Your task to perform on an android device: find which apps use the phone's location Image 0: 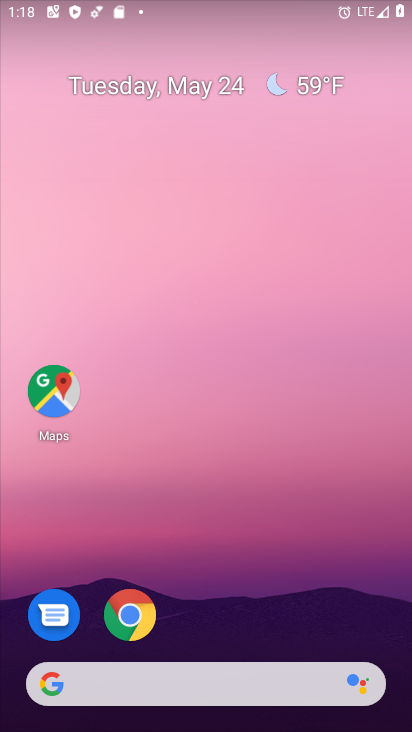
Step 0: drag from (238, 529) to (247, 52)
Your task to perform on an android device: find which apps use the phone's location Image 1: 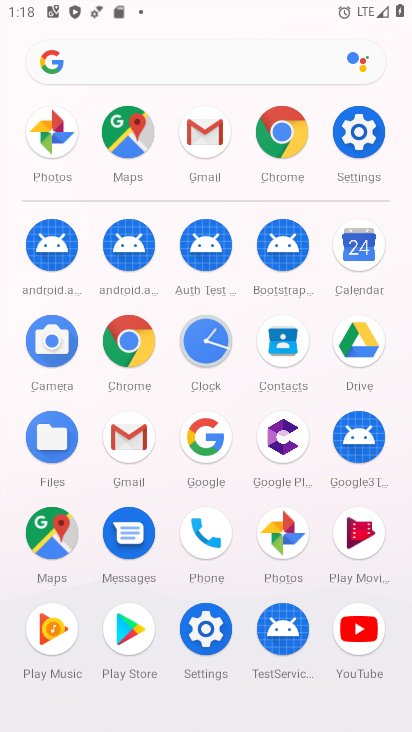
Step 1: drag from (1, 605) to (31, 224)
Your task to perform on an android device: find which apps use the phone's location Image 2: 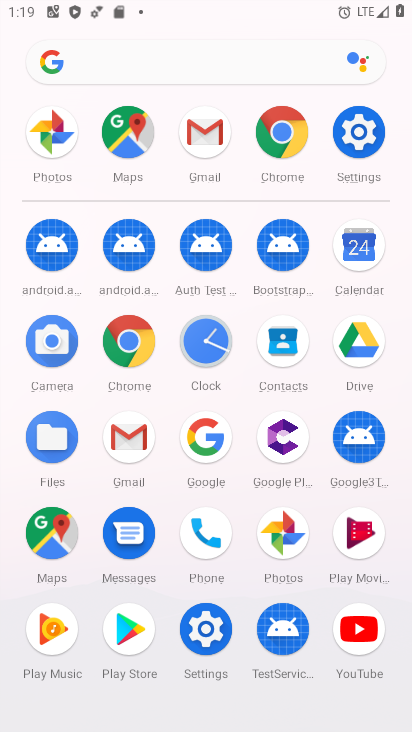
Step 2: click (200, 623)
Your task to perform on an android device: find which apps use the phone's location Image 3: 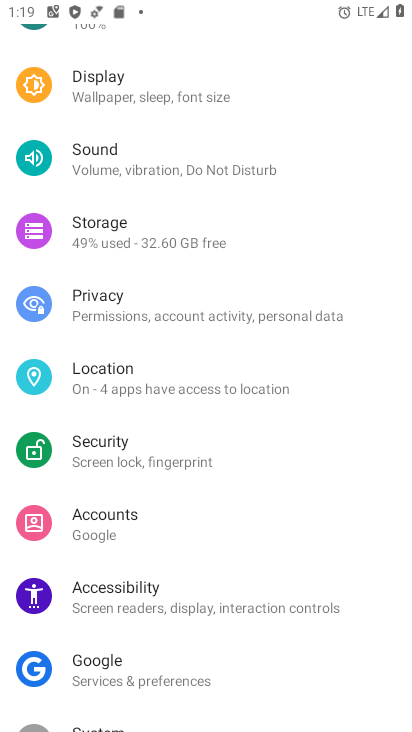
Step 3: drag from (211, 115) to (231, 598)
Your task to perform on an android device: find which apps use the phone's location Image 4: 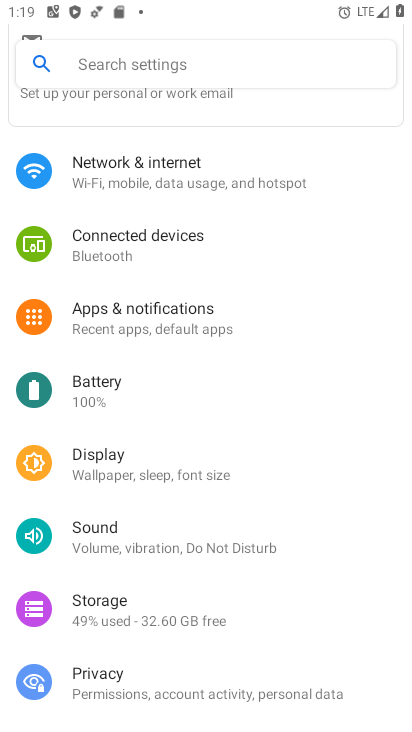
Step 4: drag from (198, 557) to (236, 219)
Your task to perform on an android device: find which apps use the phone's location Image 5: 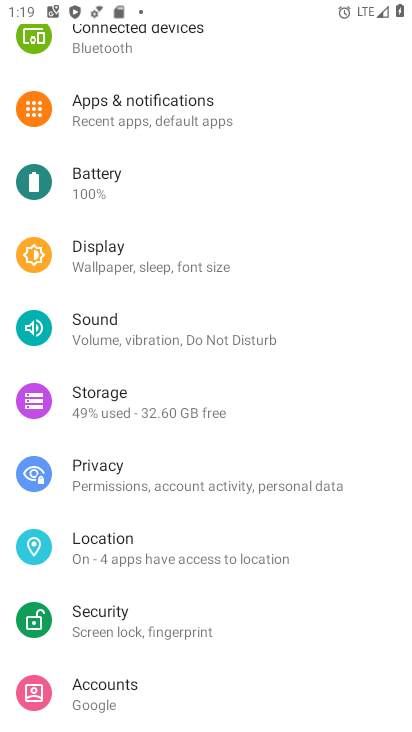
Step 5: click (154, 547)
Your task to perform on an android device: find which apps use the phone's location Image 6: 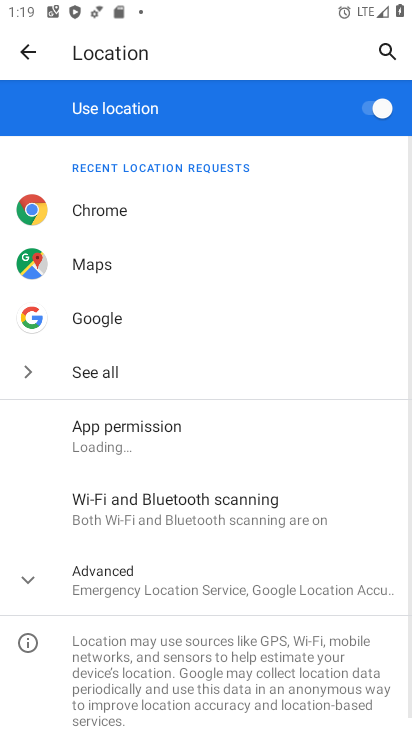
Step 6: click (108, 580)
Your task to perform on an android device: find which apps use the phone's location Image 7: 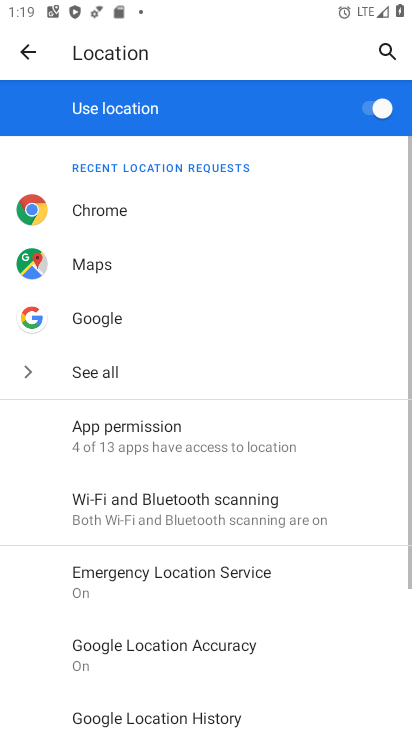
Step 7: drag from (249, 640) to (302, 235)
Your task to perform on an android device: find which apps use the phone's location Image 8: 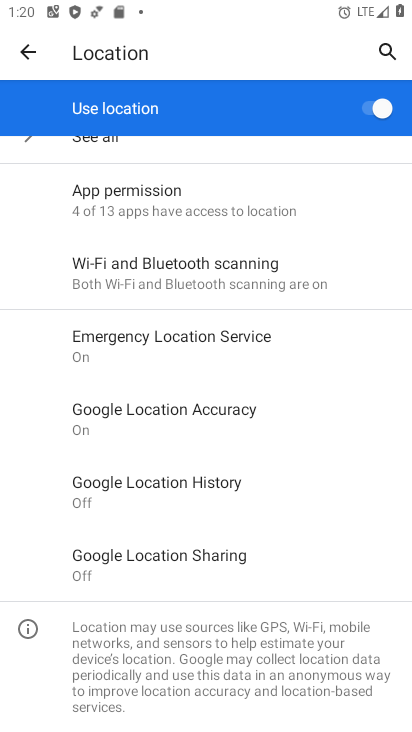
Step 8: click (198, 208)
Your task to perform on an android device: find which apps use the phone's location Image 9: 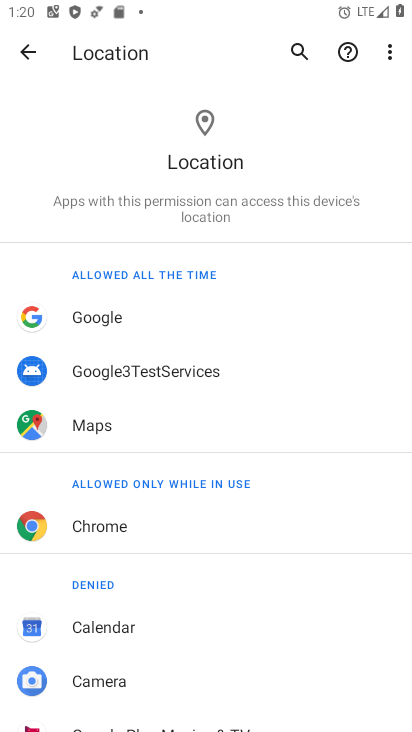
Step 9: task complete